Your task to perform on an android device: uninstall "WhatsApp Messenger" Image 0: 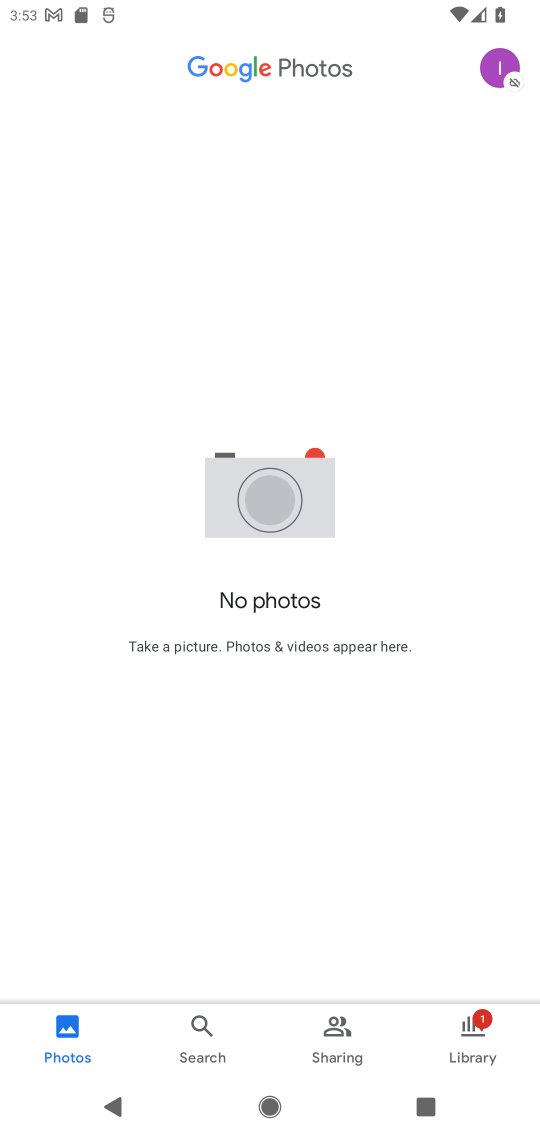
Step 0: press home button
Your task to perform on an android device: uninstall "WhatsApp Messenger" Image 1: 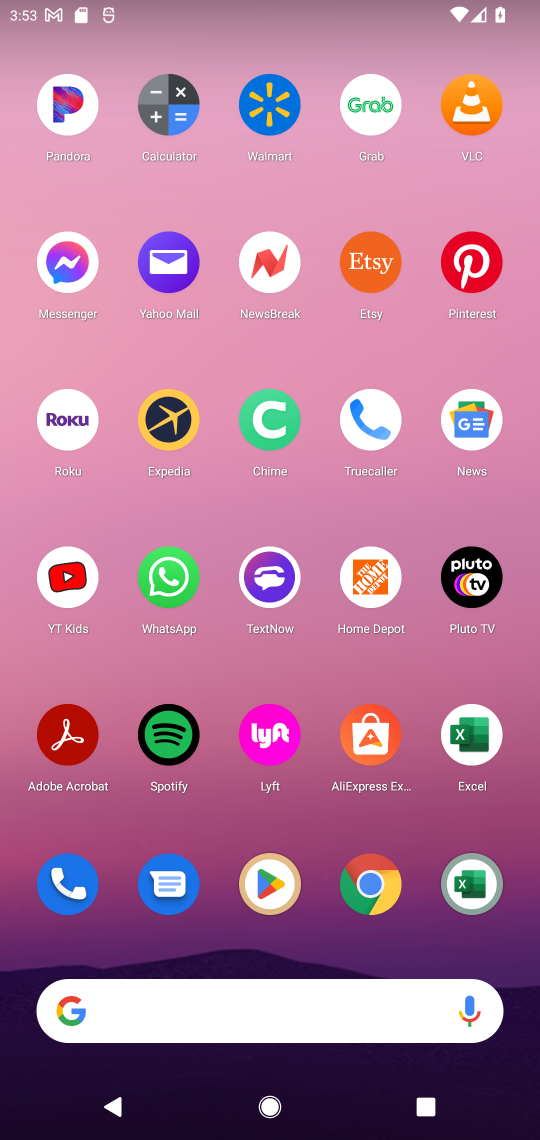
Step 1: click (254, 882)
Your task to perform on an android device: uninstall "WhatsApp Messenger" Image 2: 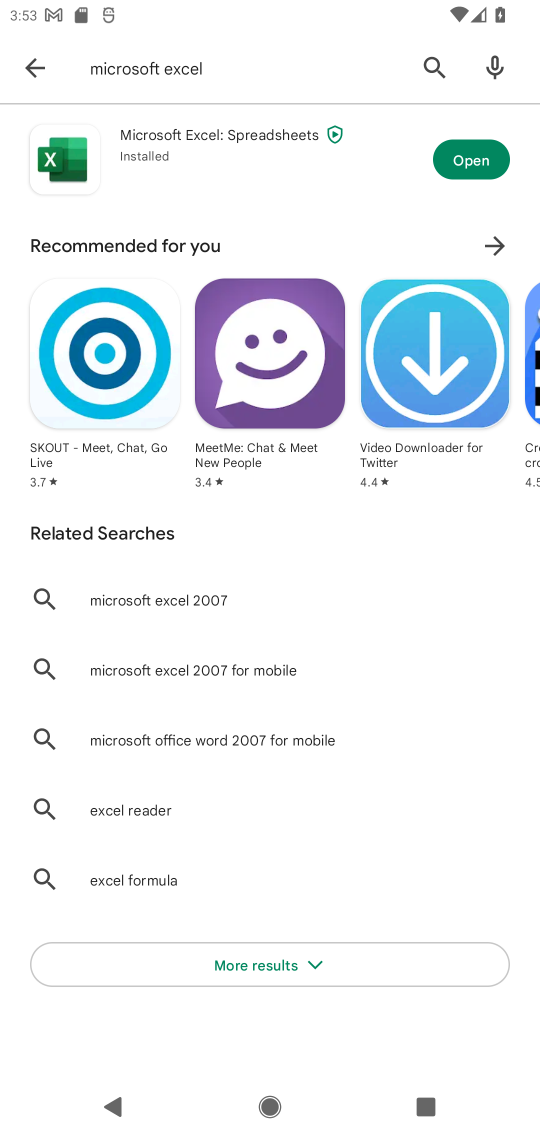
Step 2: click (204, 68)
Your task to perform on an android device: uninstall "WhatsApp Messenger" Image 3: 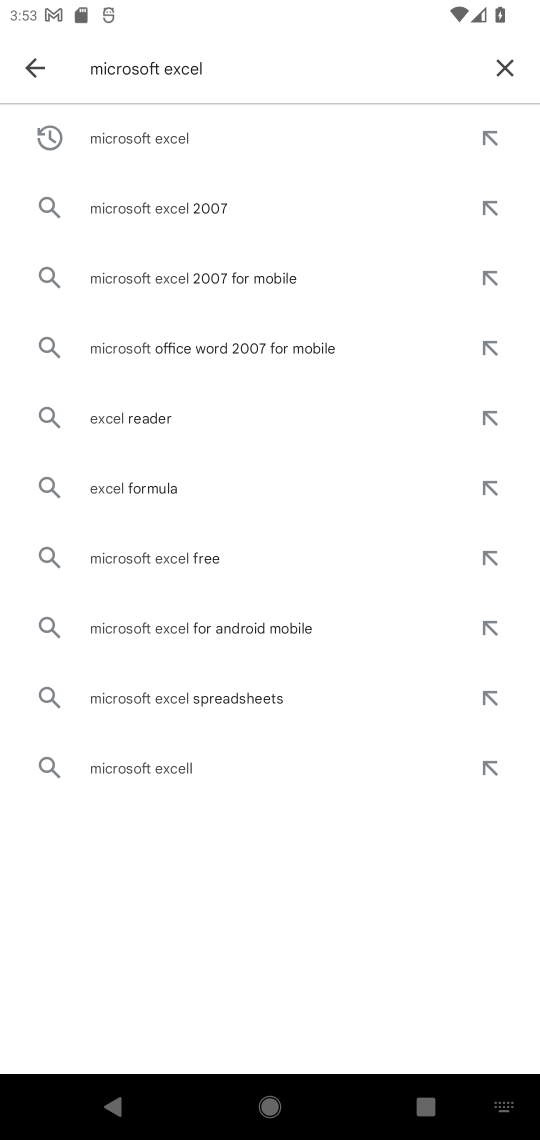
Step 3: click (497, 66)
Your task to perform on an android device: uninstall "WhatsApp Messenger" Image 4: 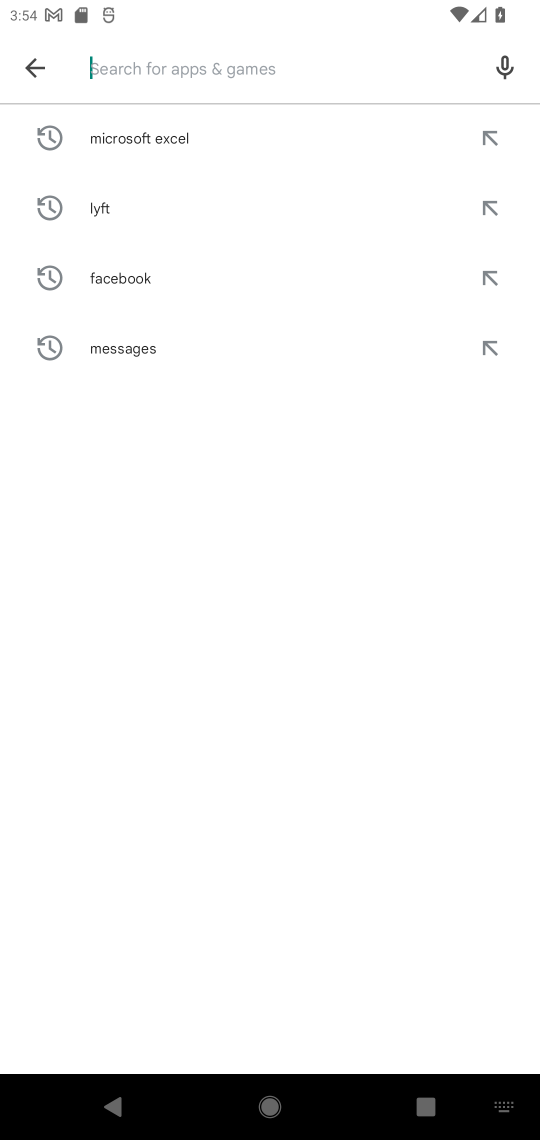
Step 4: type "whatsapp messenger"
Your task to perform on an android device: uninstall "WhatsApp Messenger" Image 5: 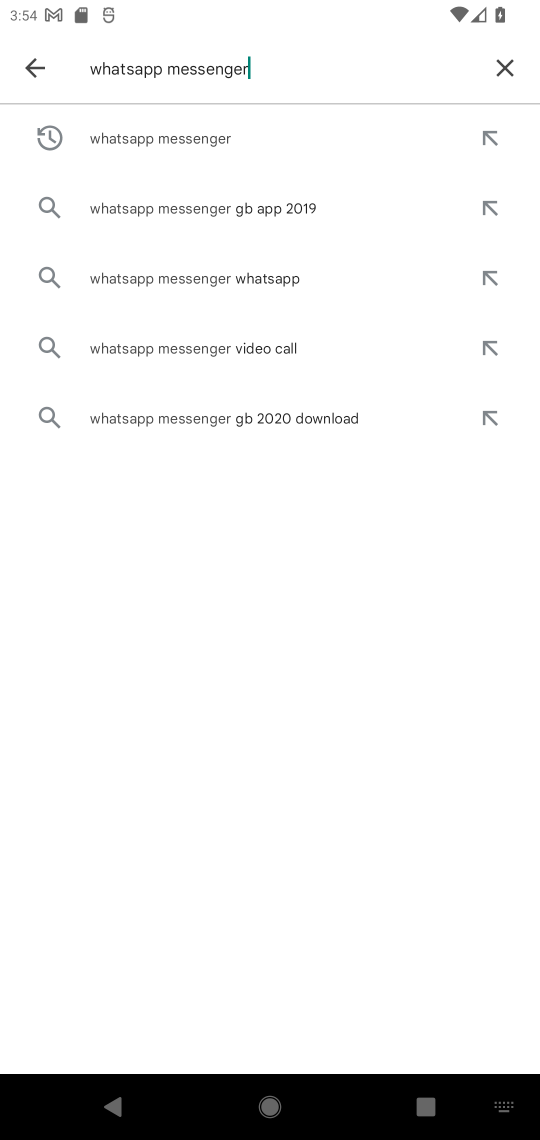
Step 5: click (183, 158)
Your task to perform on an android device: uninstall "WhatsApp Messenger" Image 6: 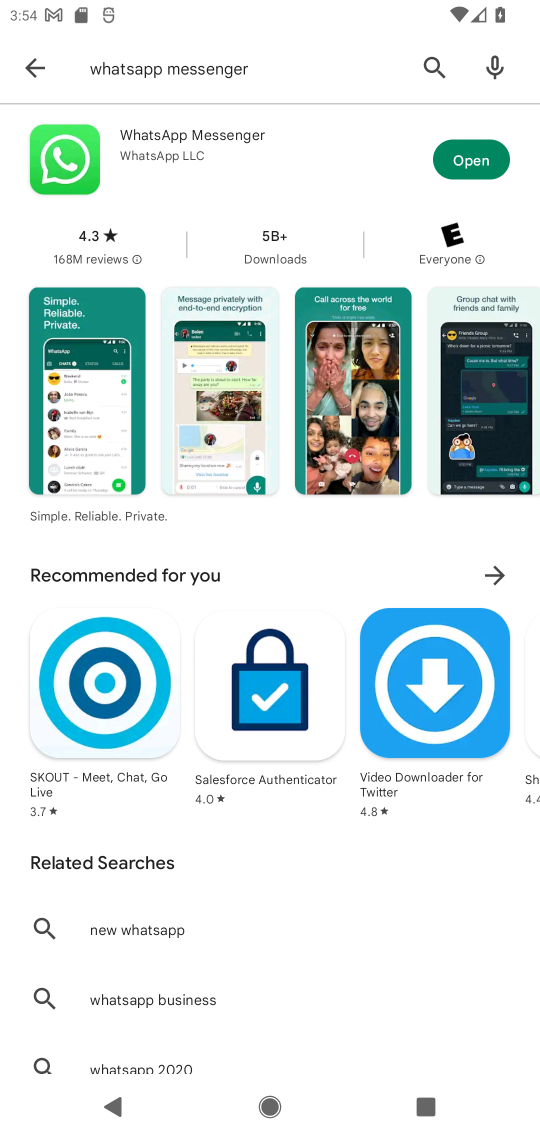
Step 6: click (68, 146)
Your task to perform on an android device: uninstall "WhatsApp Messenger" Image 7: 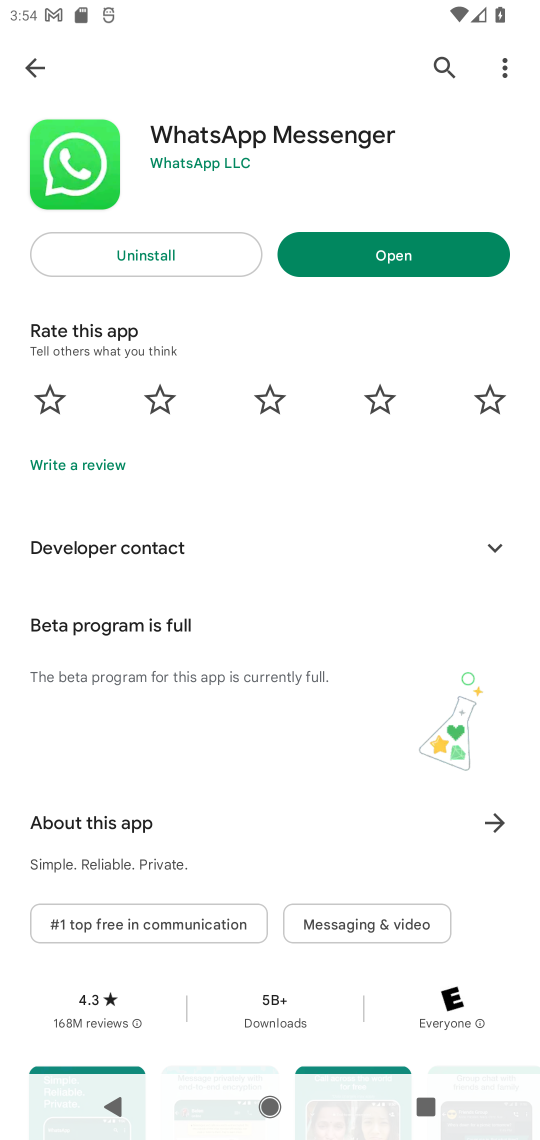
Step 7: click (192, 263)
Your task to perform on an android device: uninstall "WhatsApp Messenger" Image 8: 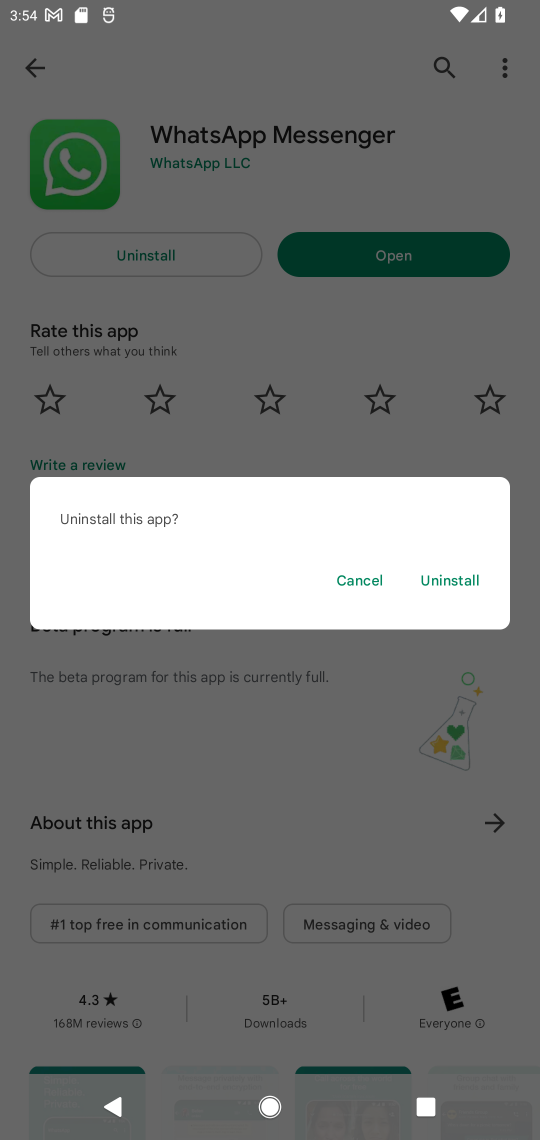
Step 8: click (451, 572)
Your task to perform on an android device: uninstall "WhatsApp Messenger" Image 9: 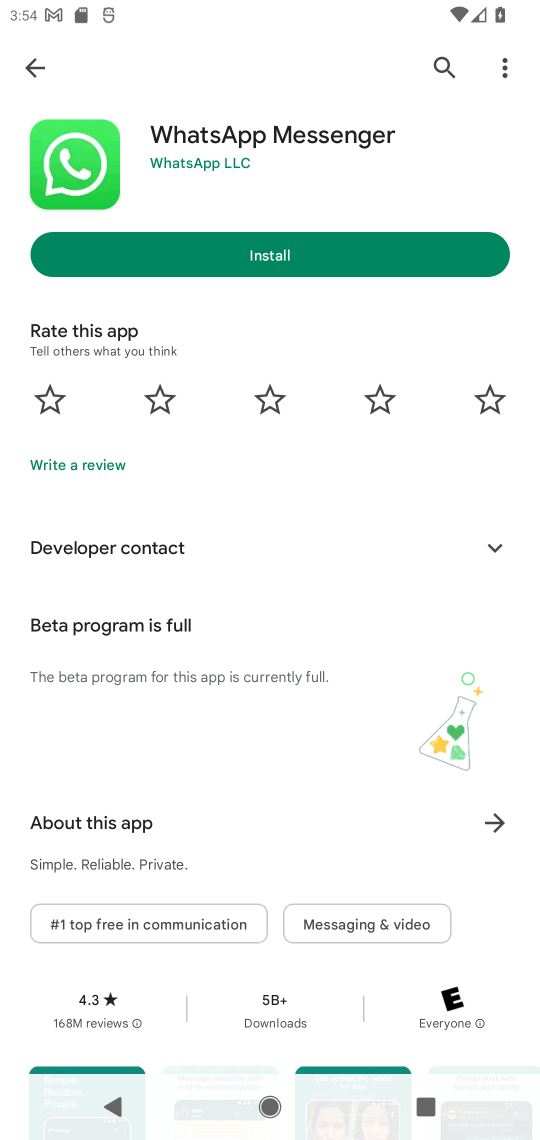
Step 9: task complete